Your task to perform on an android device: Show me productivity apps on the Play Store Image 0: 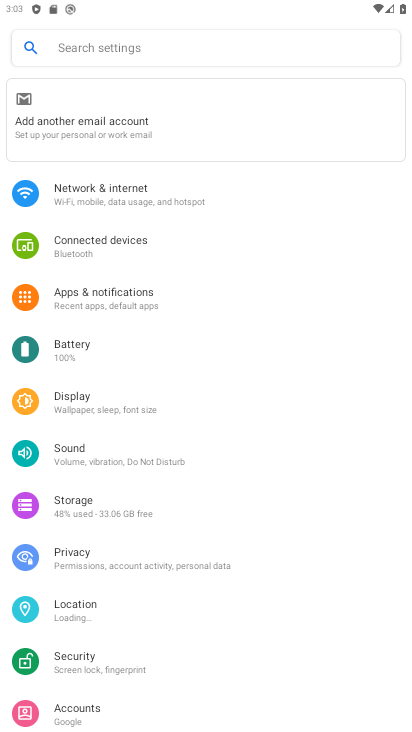
Step 0: press home button
Your task to perform on an android device: Show me productivity apps on the Play Store Image 1: 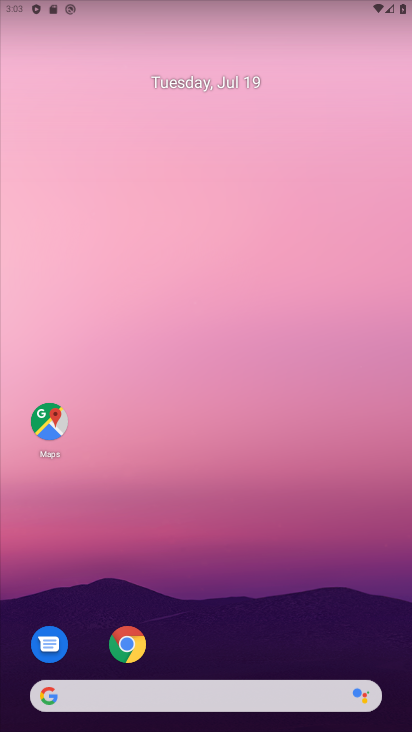
Step 1: drag from (205, 690) to (220, 147)
Your task to perform on an android device: Show me productivity apps on the Play Store Image 2: 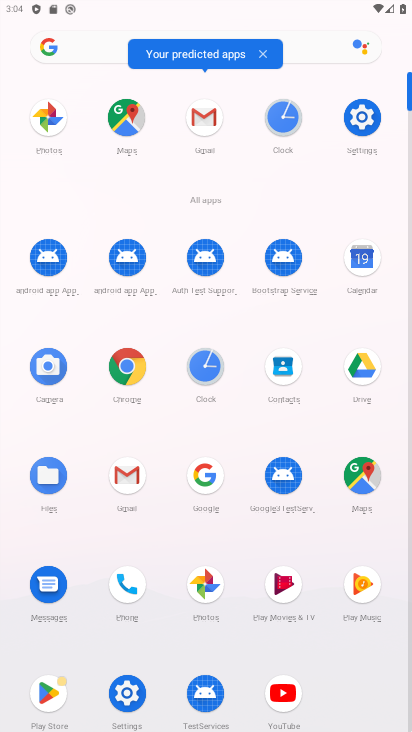
Step 2: click (60, 698)
Your task to perform on an android device: Show me productivity apps on the Play Store Image 3: 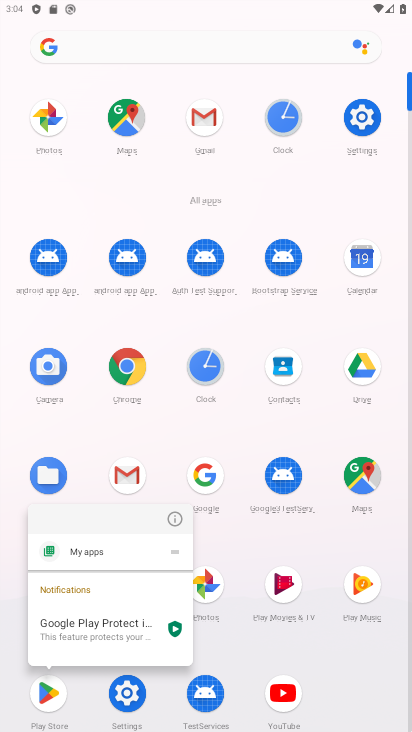
Step 3: click (44, 706)
Your task to perform on an android device: Show me productivity apps on the Play Store Image 4: 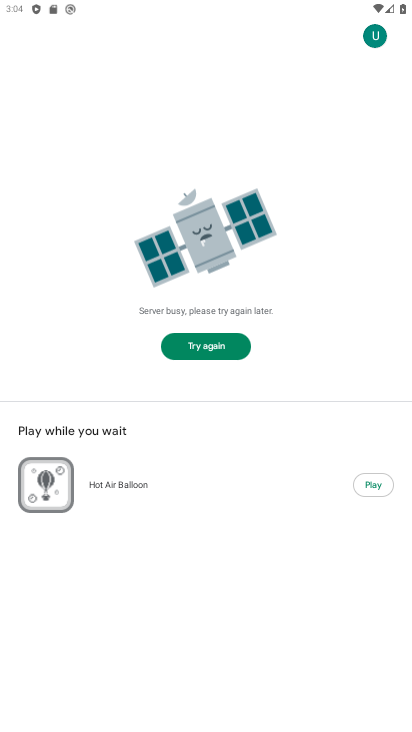
Step 4: task complete